Your task to perform on an android device: toggle data saver in the chrome app Image 0: 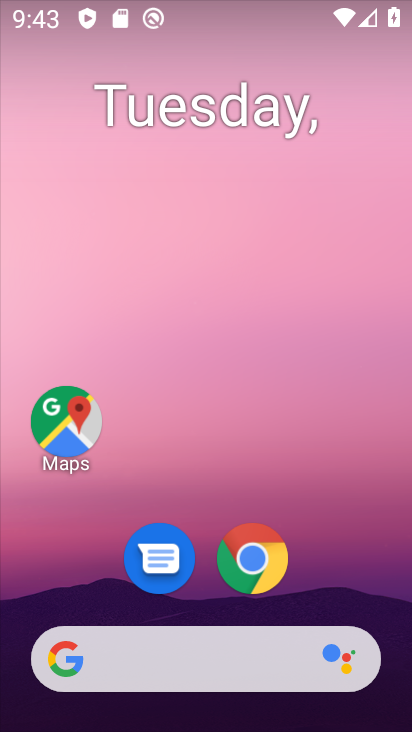
Step 0: drag from (380, 695) to (118, 34)
Your task to perform on an android device: toggle data saver in the chrome app Image 1: 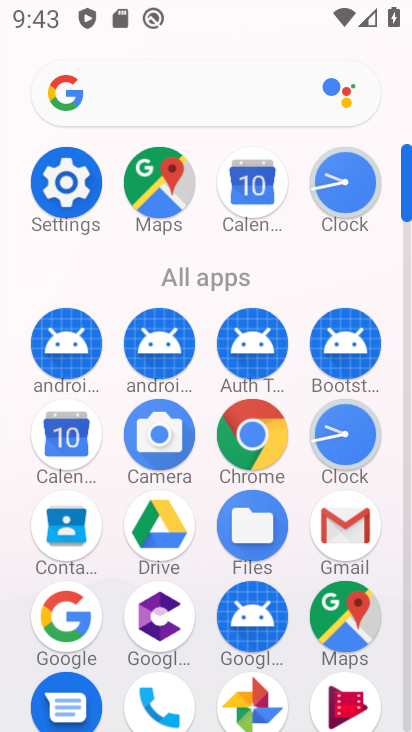
Step 1: click (259, 439)
Your task to perform on an android device: toggle data saver in the chrome app Image 2: 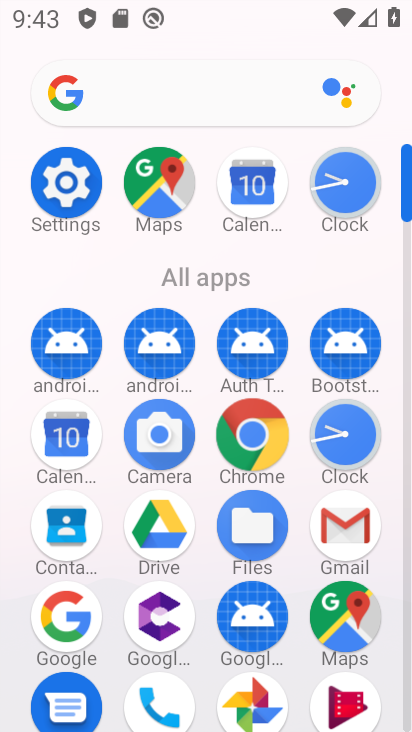
Step 2: click (260, 433)
Your task to perform on an android device: toggle data saver in the chrome app Image 3: 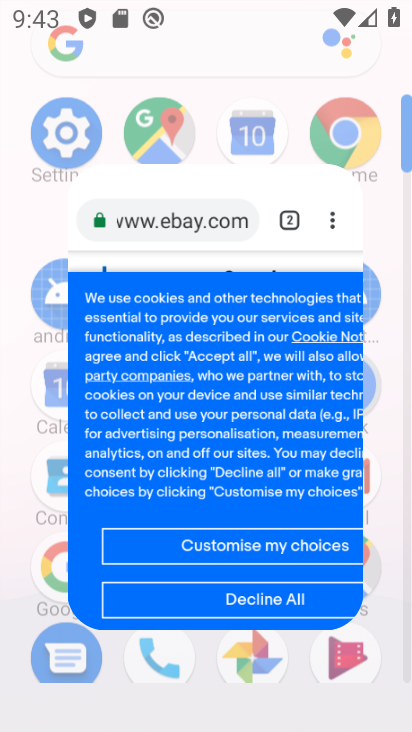
Step 3: click (260, 433)
Your task to perform on an android device: toggle data saver in the chrome app Image 4: 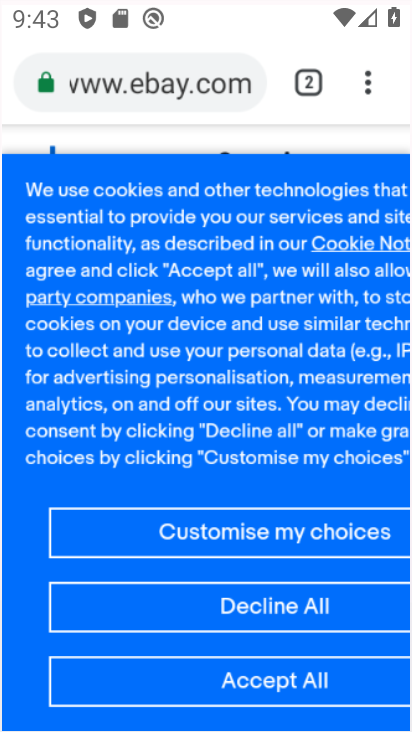
Step 4: click (262, 430)
Your task to perform on an android device: toggle data saver in the chrome app Image 5: 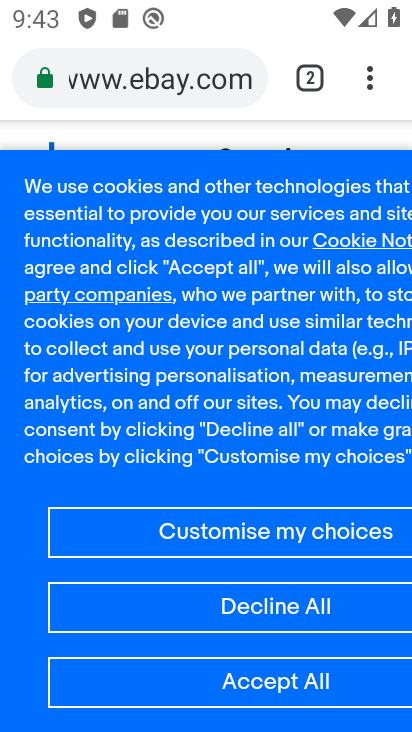
Step 5: drag from (362, 75) to (110, 622)
Your task to perform on an android device: toggle data saver in the chrome app Image 6: 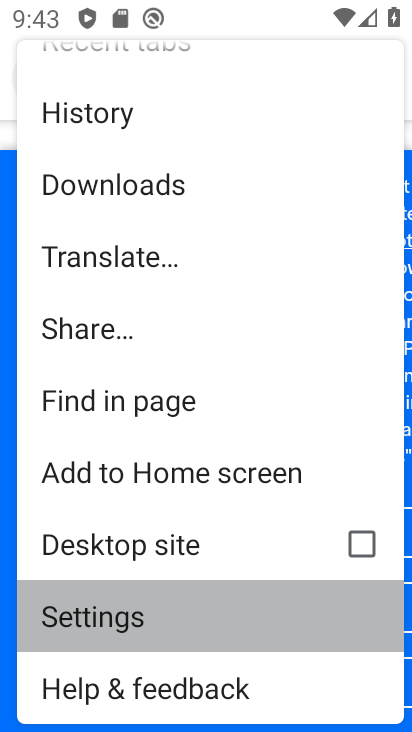
Step 6: click (116, 621)
Your task to perform on an android device: toggle data saver in the chrome app Image 7: 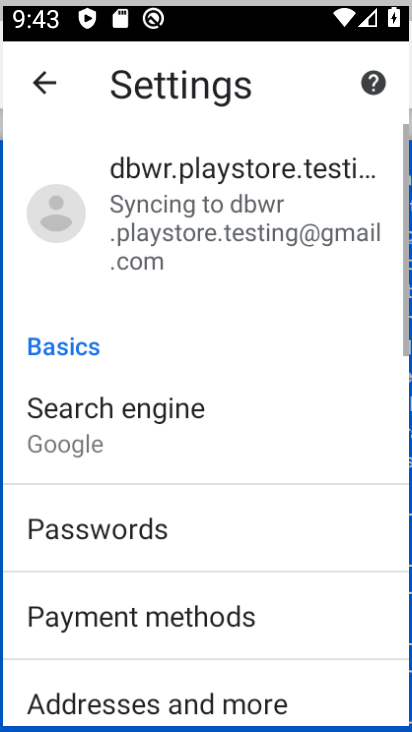
Step 7: click (123, 616)
Your task to perform on an android device: toggle data saver in the chrome app Image 8: 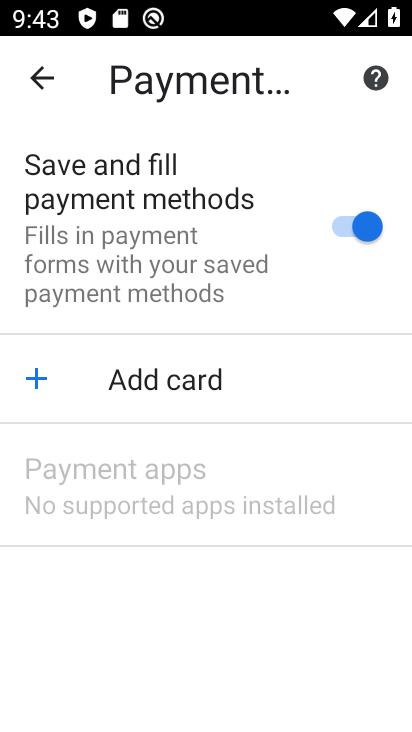
Step 8: click (38, 79)
Your task to perform on an android device: toggle data saver in the chrome app Image 9: 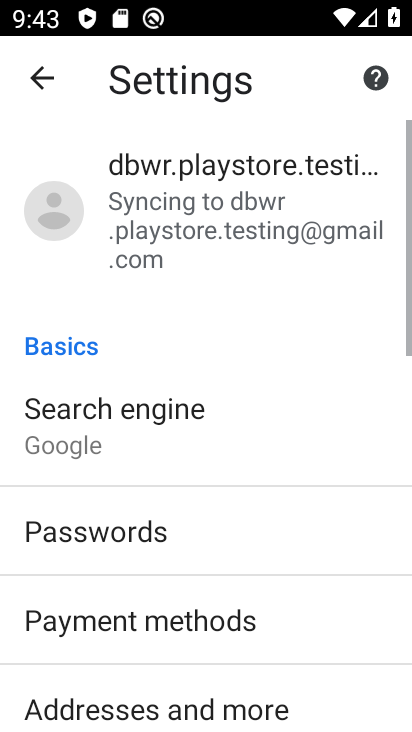
Step 9: drag from (242, 490) to (237, 173)
Your task to perform on an android device: toggle data saver in the chrome app Image 10: 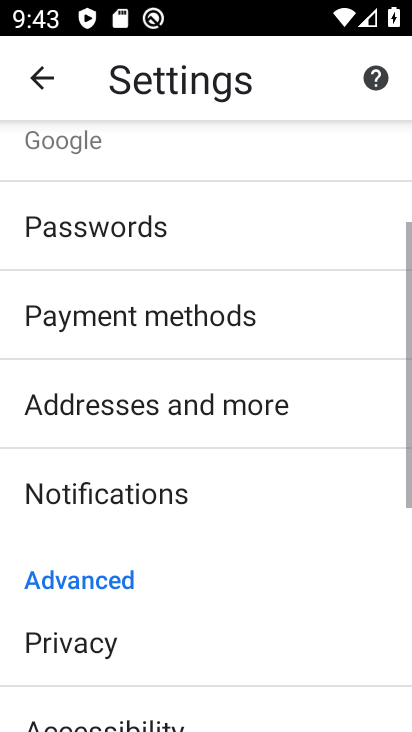
Step 10: drag from (232, 457) to (200, 198)
Your task to perform on an android device: toggle data saver in the chrome app Image 11: 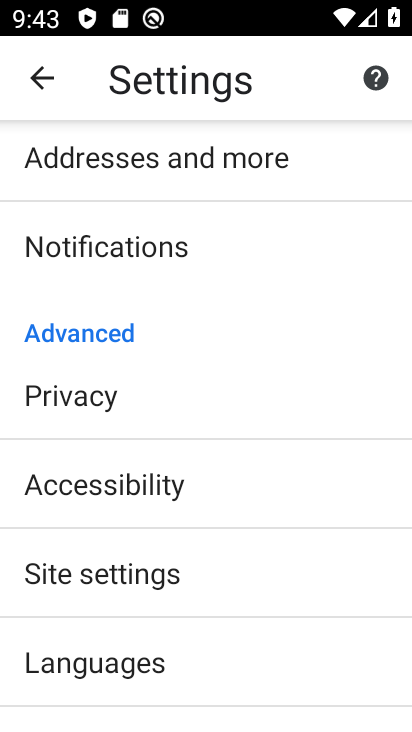
Step 11: click (81, 577)
Your task to perform on an android device: toggle data saver in the chrome app Image 12: 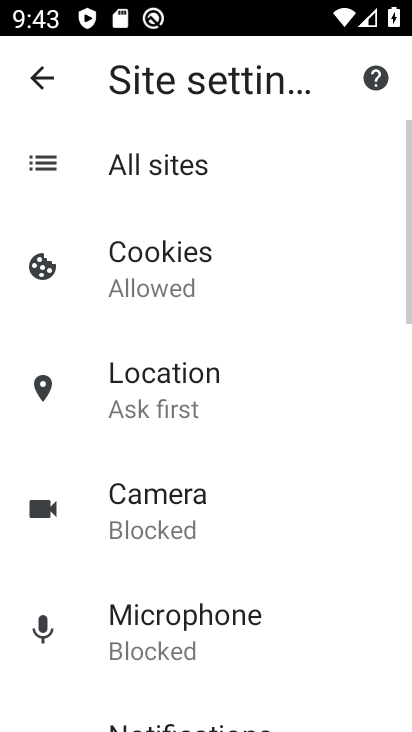
Step 12: click (45, 78)
Your task to perform on an android device: toggle data saver in the chrome app Image 13: 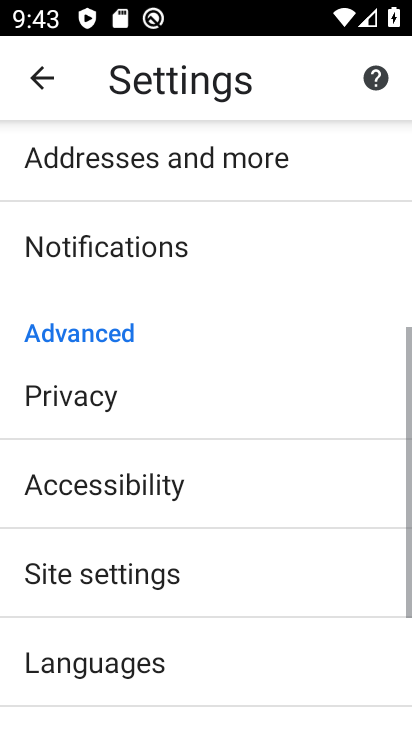
Step 13: drag from (166, 496) to (203, 243)
Your task to perform on an android device: toggle data saver in the chrome app Image 14: 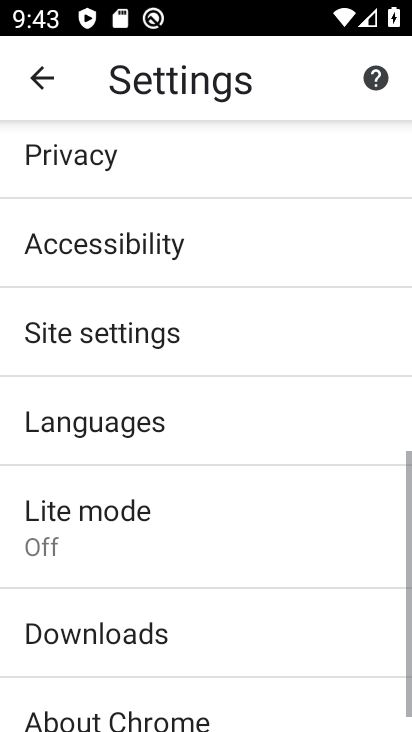
Step 14: drag from (235, 501) to (235, 99)
Your task to perform on an android device: toggle data saver in the chrome app Image 15: 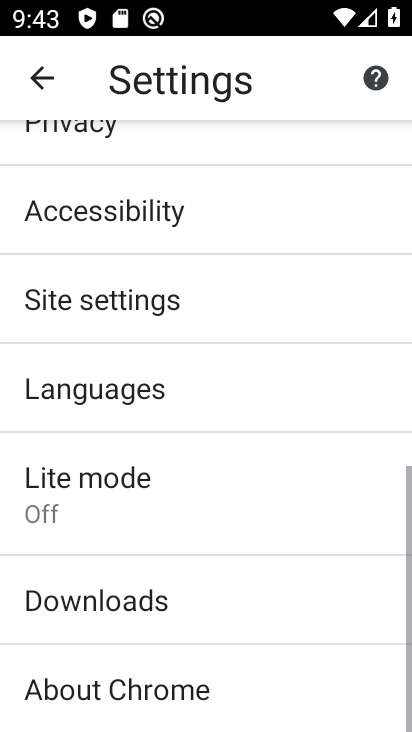
Step 15: click (71, 472)
Your task to perform on an android device: toggle data saver in the chrome app Image 16: 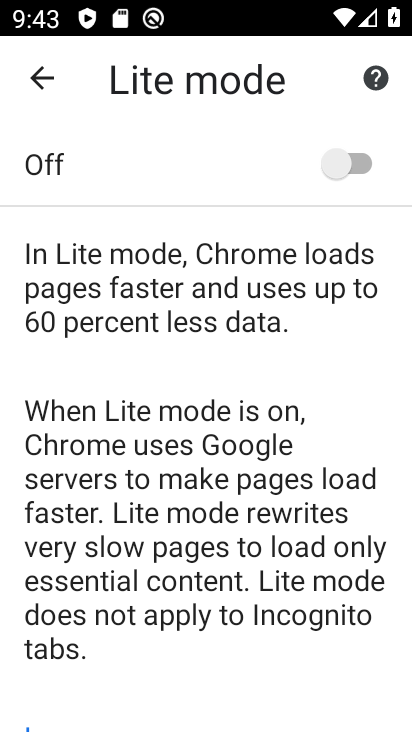
Step 16: click (324, 164)
Your task to perform on an android device: toggle data saver in the chrome app Image 17: 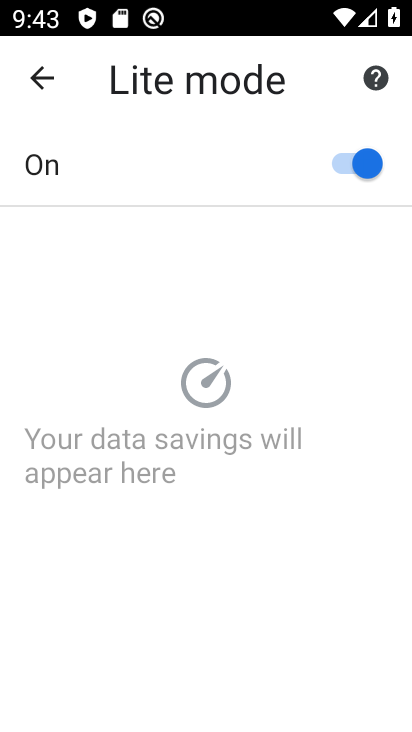
Step 17: task complete